Your task to perform on an android device: Turn on the flashlight Image 0: 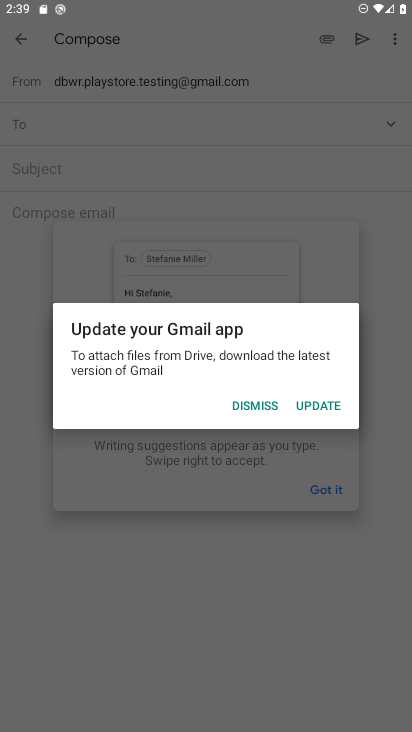
Step 0: press home button
Your task to perform on an android device: Turn on the flashlight Image 1: 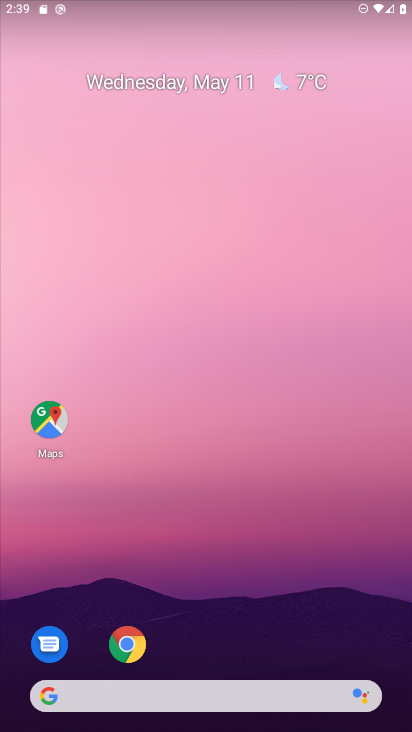
Step 1: drag from (201, 643) to (201, 274)
Your task to perform on an android device: Turn on the flashlight Image 2: 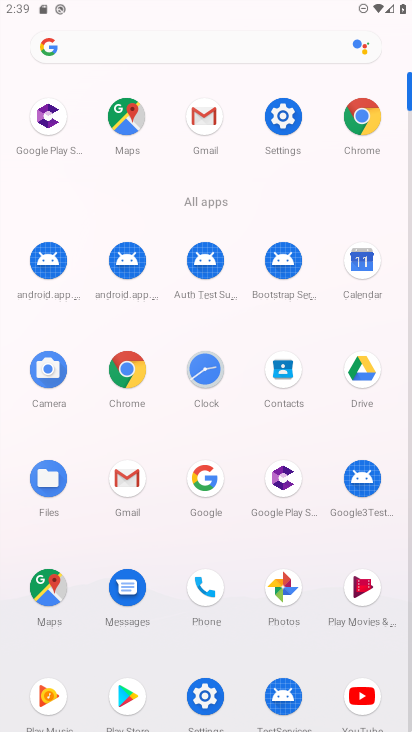
Step 2: click (271, 110)
Your task to perform on an android device: Turn on the flashlight Image 3: 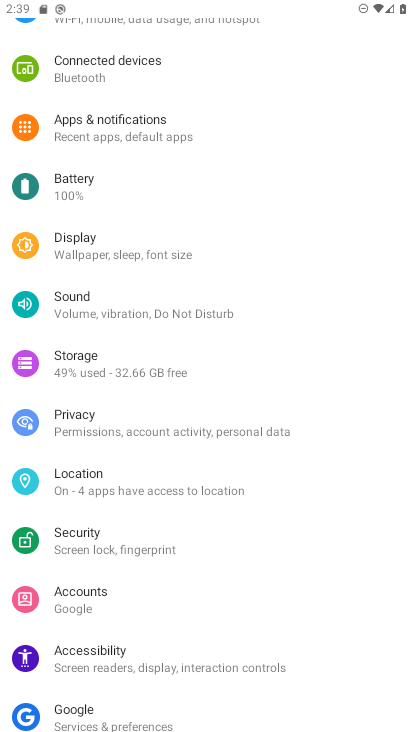
Step 3: task complete